Your task to perform on an android device: What's the weather going to be this weekend? Image 0: 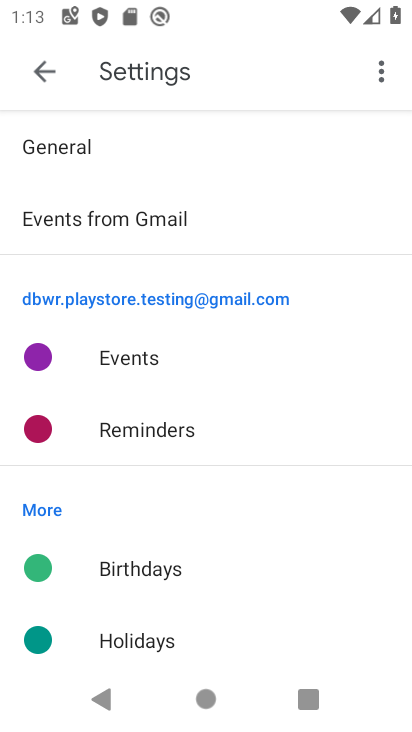
Step 0: press home button
Your task to perform on an android device: What's the weather going to be this weekend? Image 1: 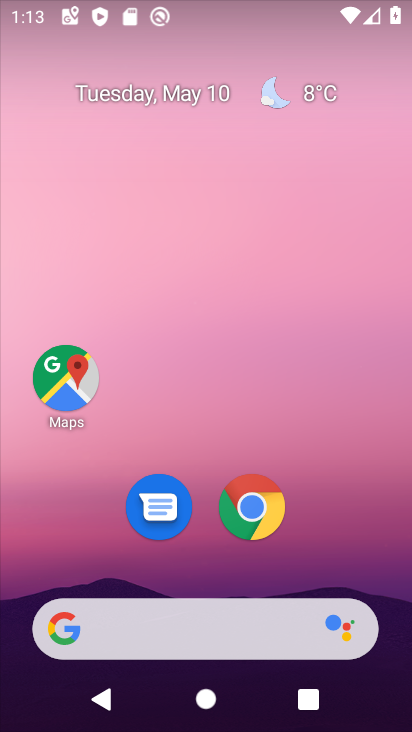
Step 1: drag from (287, 628) to (228, 239)
Your task to perform on an android device: What's the weather going to be this weekend? Image 2: 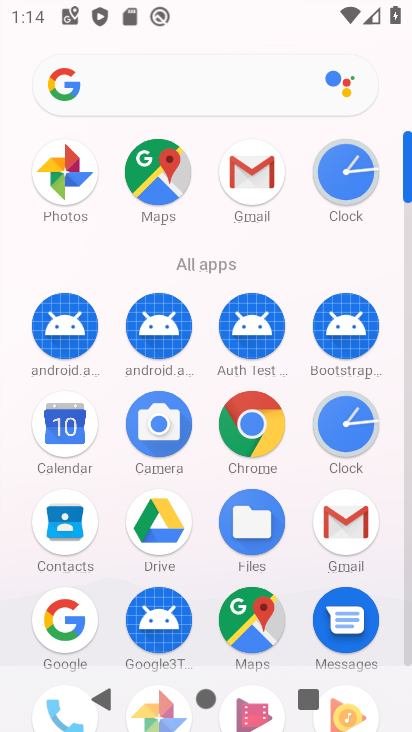
Step 2: click (184, 89)
Your task to perform on an android device: What's the weather going to be this weekend? Image 3: 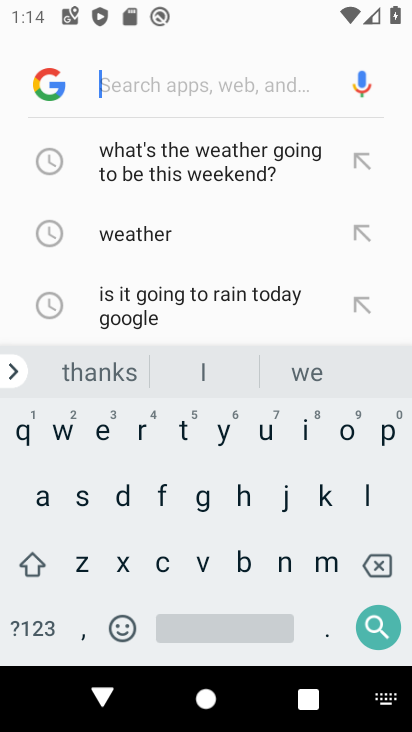
Step 3: click (175, 243)
Your task to perform on an android device: What's the weather going to be this weekend? Image 4: 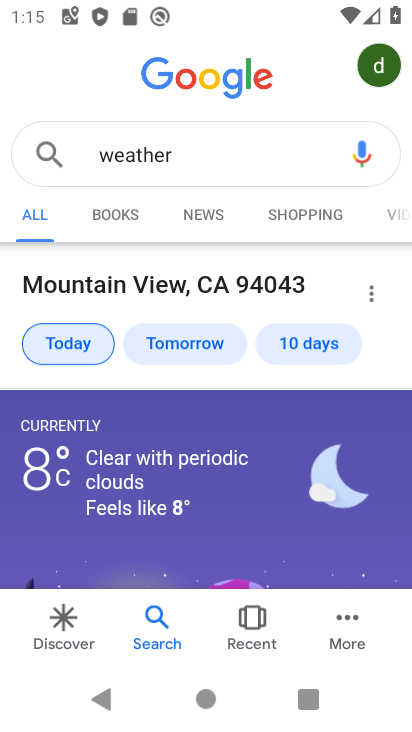
Step 4: task complete